Your task to perform on an android device: toggle notifications settings in the gmail app Image 0: 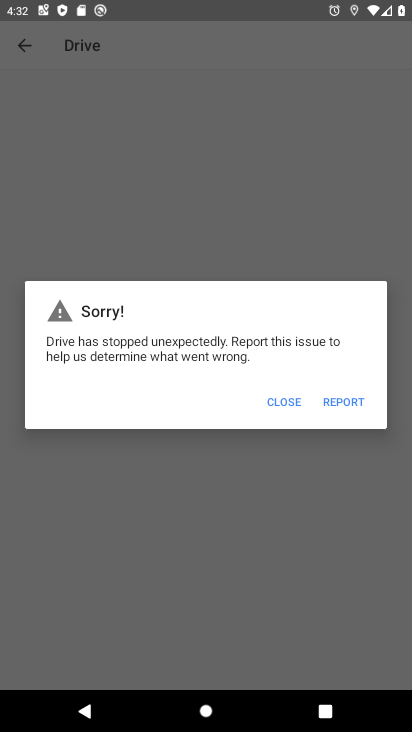
Step 0: press home button
Your task to perform on an android device: toggle notifications settings in the gmail app Image 1: 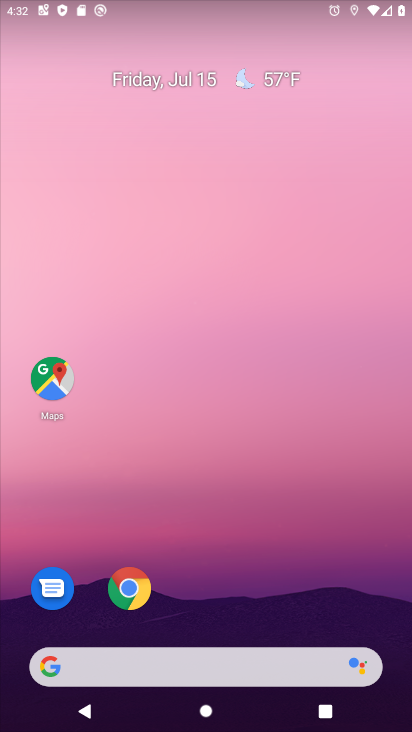
Step 1: drag from (185, 667) to (263, 197)
Your task to perform on an android device: toggle notifications settings in the gmail app Image 2: 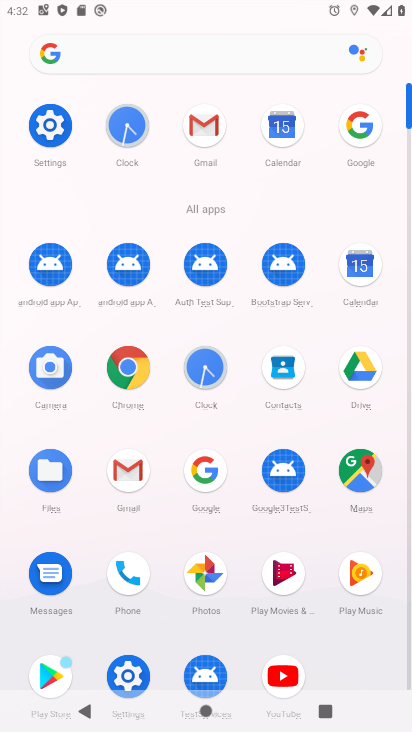
Step 2: click (127, 469)
Your task to perform on an android device: toggle notifications settings in the gmail app Image 3: 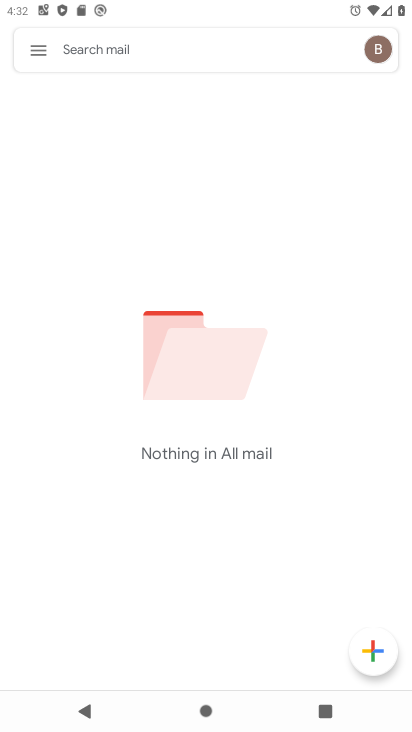
Step 3: click (38, 56)
Your task to perform on an android device: toggle notifications settings in the gmail app Image 4: 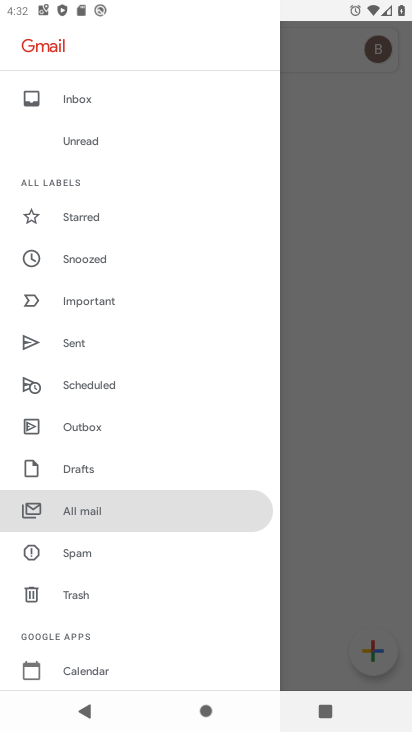
Step 4: drag from (89, 548) to (119, 441)
Your task to perform on an android device: toggle notifications settings in the gmail app Image 5: 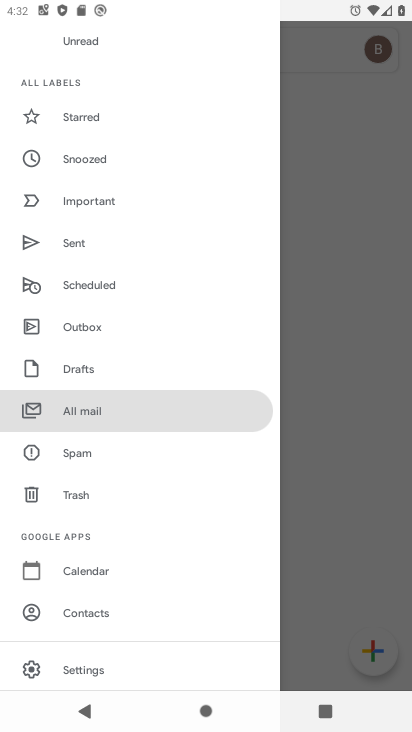
Step 5: drag from (126, 618) to (211, 381)
Your task to perform on an android device: toggle notifications settings in the gmail app Image 6: 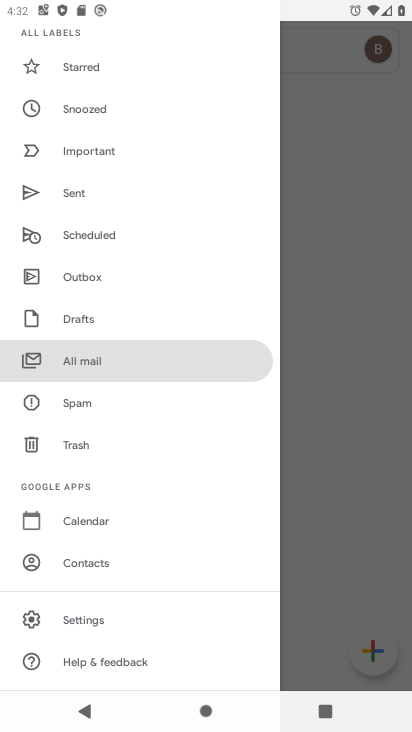
Step 6: click (84, 624)
Your task to perform on an android device: toggle notifications settings in the gmail app Image 7: 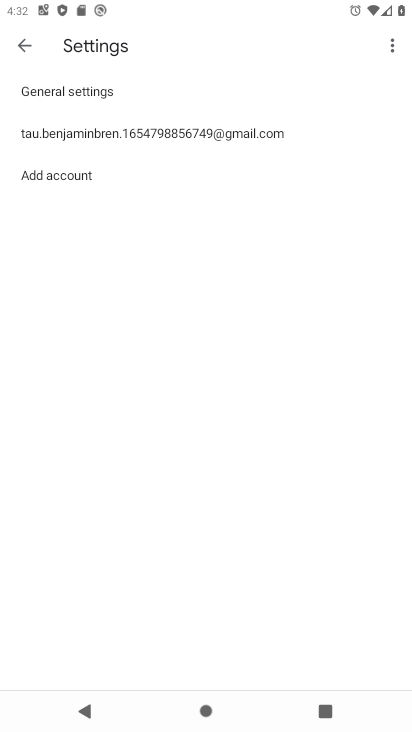
Step 7: click (172, 130)
Your task to perform on an android device: toggle notifications settings in the gmail app Image 8: 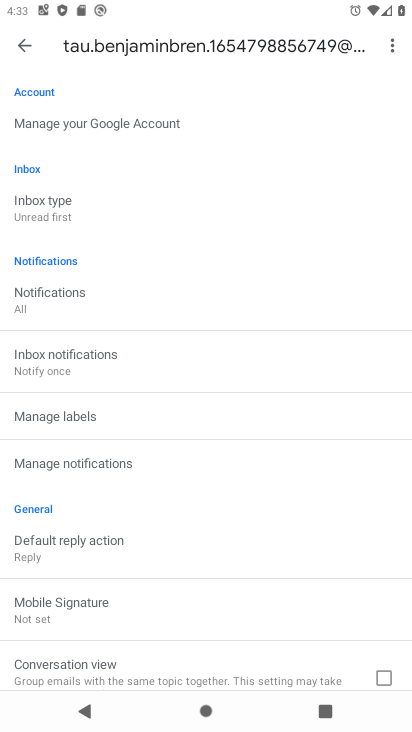
Step 8: click (86, 458)
Your task to perform on an android device: toggle notifications settings in the gmail app Image 9: 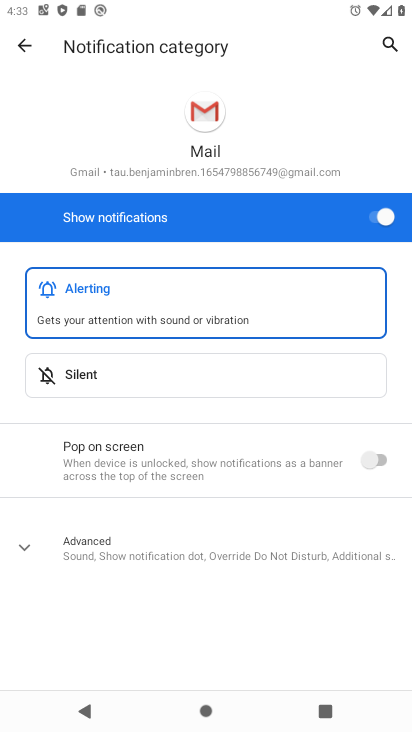
Step 9: click (373, 219)
Your task to perform on an android device: toggle notifications settings in the gmail app Image 10: 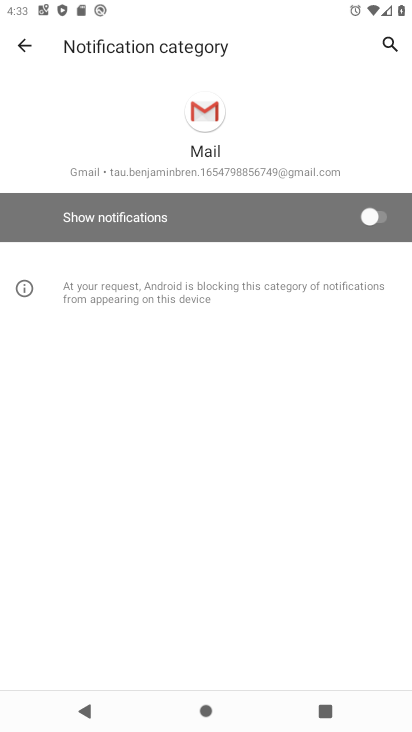
Step 10: task complete